Your task to perform on an android device: Show me popular games on the Play Store Image 0: 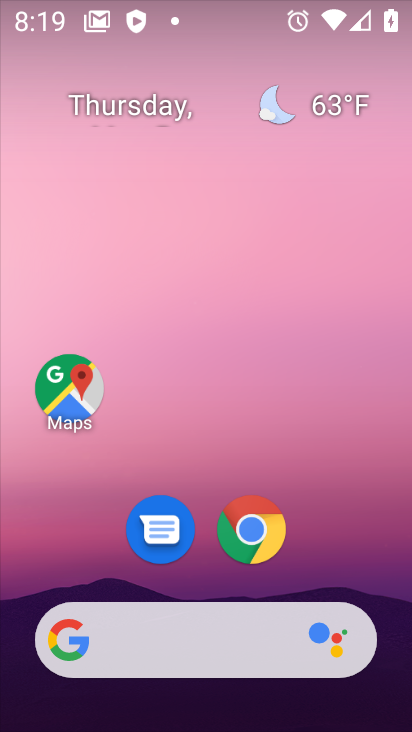
Step 0: drag from (195, 476) to (192, 220)
Your task to perform on an android device: Show me popular games on the Play Store Image 1: 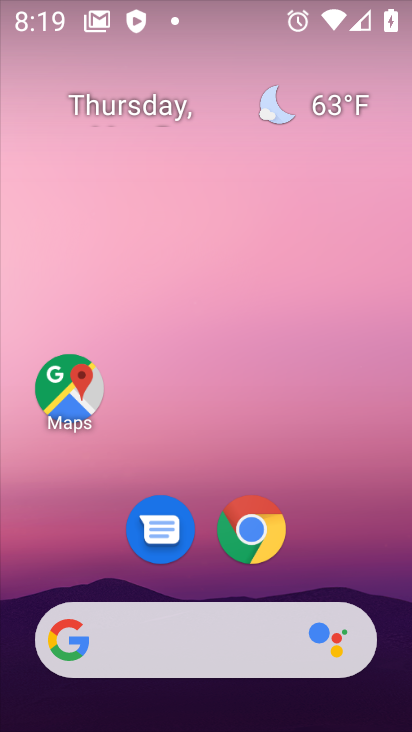
Step 1: drag from (195, 582) to (185, 191)
Your task to perform on an android device: Show me popular games on the Play Store Image 2: 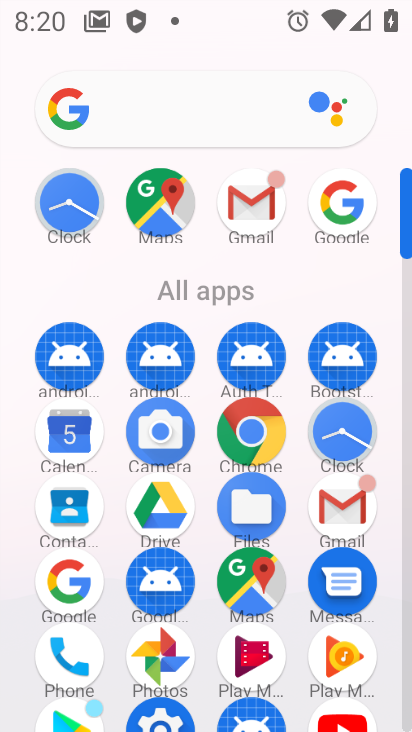
Step 2: drag from (195, 625) to (219, 291)
Your task to perform on an android device: Show me popular games on the Play Store Image 3: 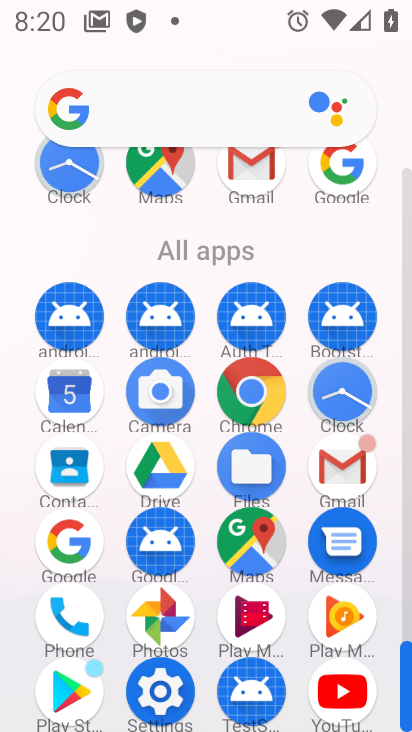
Step 3: click (58, 667)
Your task to perform on an android device: Show me popular games on the Play Store Image 4: 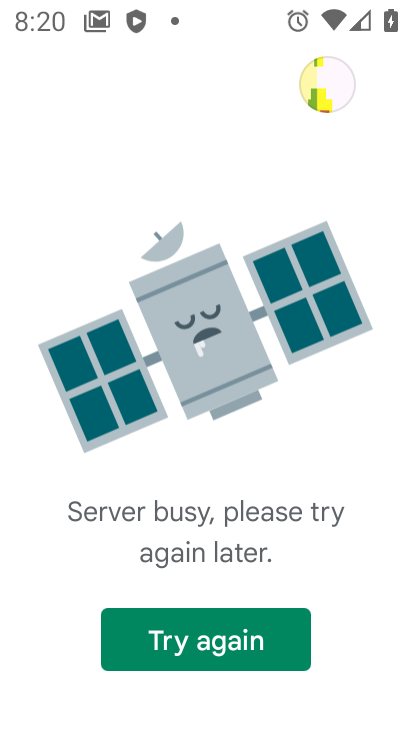
Step 4: click (216, 628)
Your task to perform on an android device: Show me popular games on the Play Store Image 5: 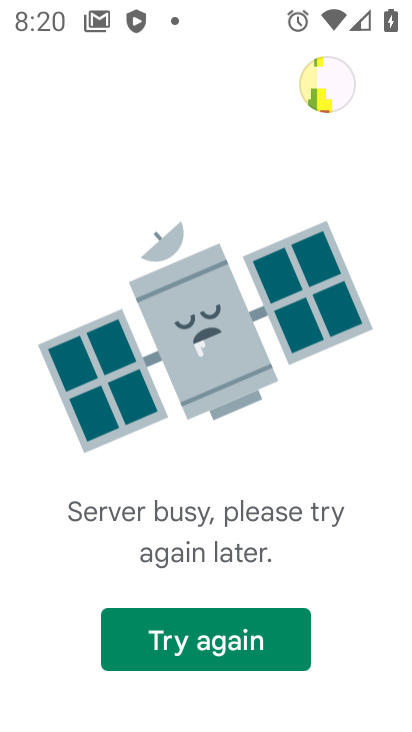
Step 5: click (210, 640)
Your task to perform on an android device: Show me popular games on the Play Store Image 6: 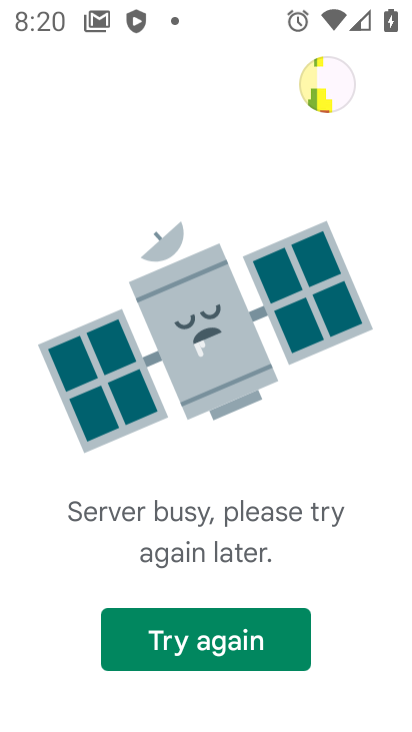
Step 6: press back button
Your task to perform on an android device: Show me popular games on the Play Store Image 7: 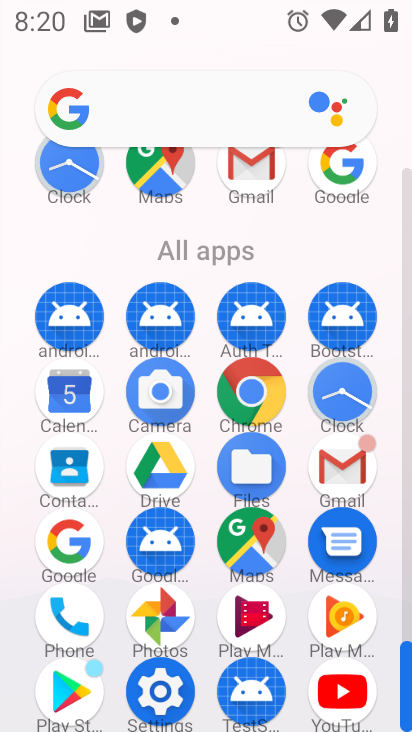
Step 7: click (78, 685)
Your task to perform on an android device: Show me popular games on the Play Store Image 8: 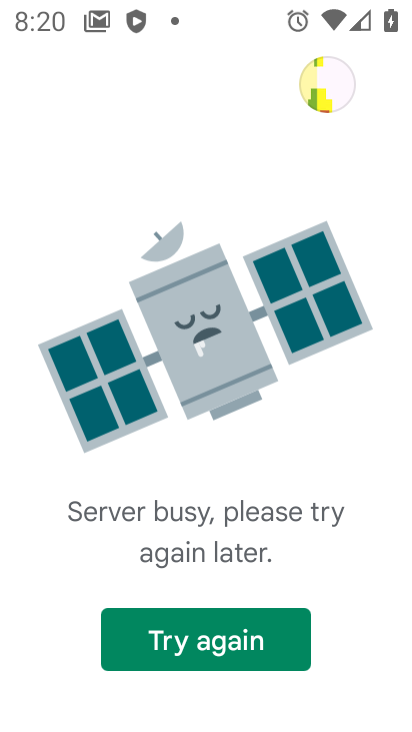
Step 8: task complete